Your task to perform on an android device: move an email to a new category in the gmail app Image 0: 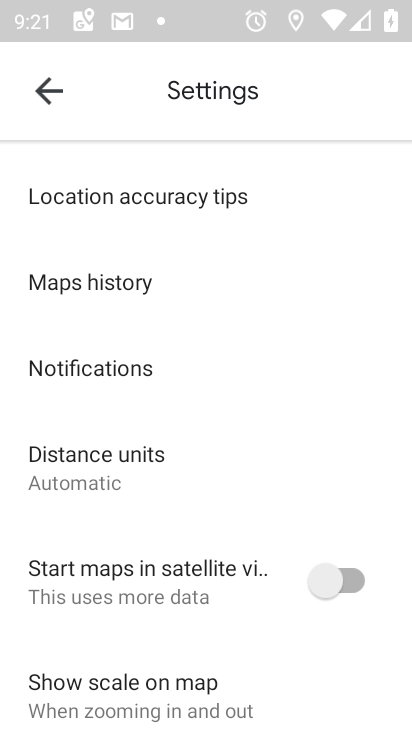
Step 0: press home button
Your task to perform on an android device: move an email to a new category in the gmail app Image 1: 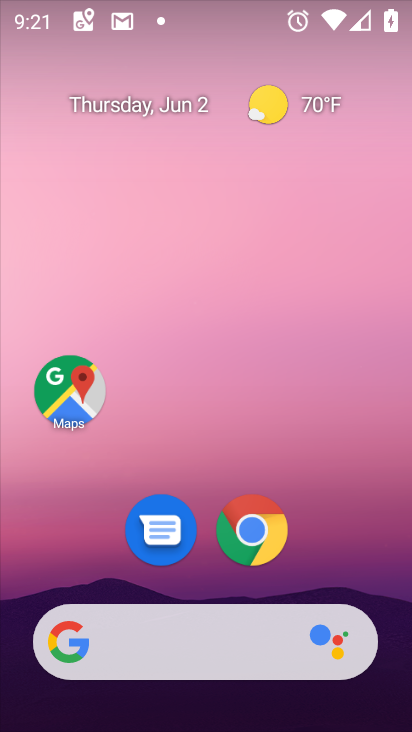
Step 1: drag from (145, 588) to (145, 288)
Your task to perform on an android device: move an email to a new category in the gmail app Image 2: 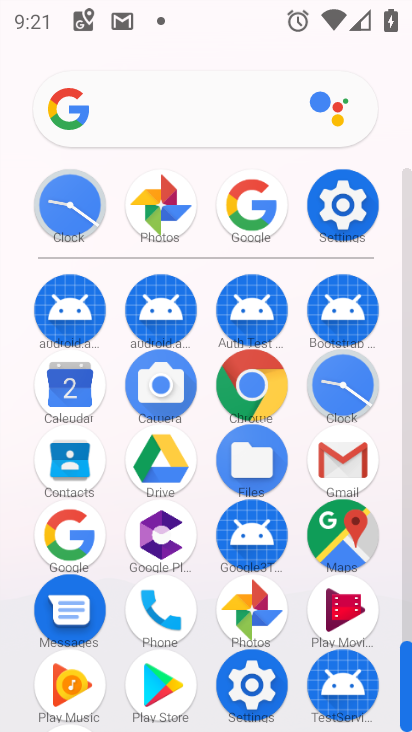
Step 2: click (342, 462)
Your task to perform on an android device: move an email to a new category in the gmail app Image 3: 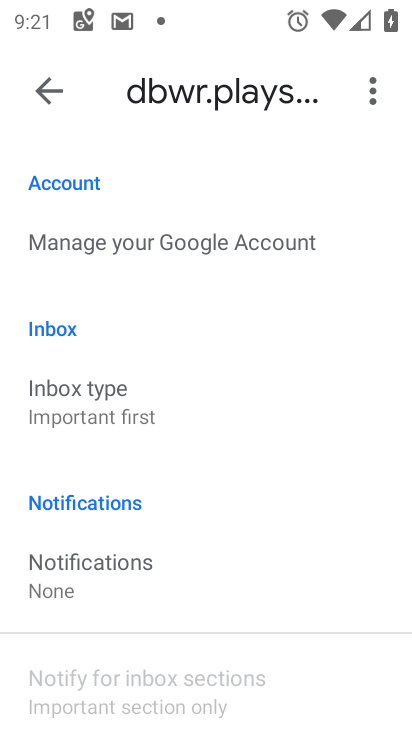
Step 3: click (43, 99)
Your task to perform on an android device: move an email to a new category in the gmail app Image 4: 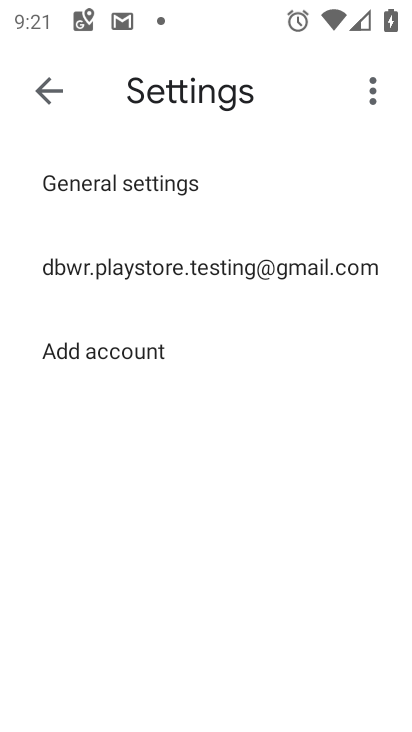
Step 4: task complete